Your task to perform on an android device: set the timer Image 0: 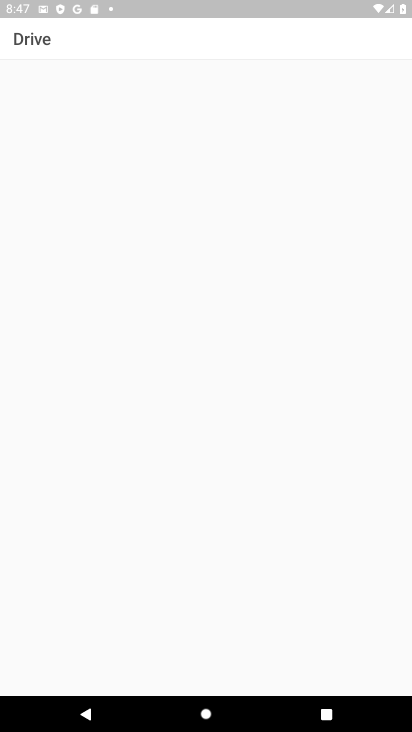
Step 0: press home button
Your task to perform on an android device: set the timer Image 1: 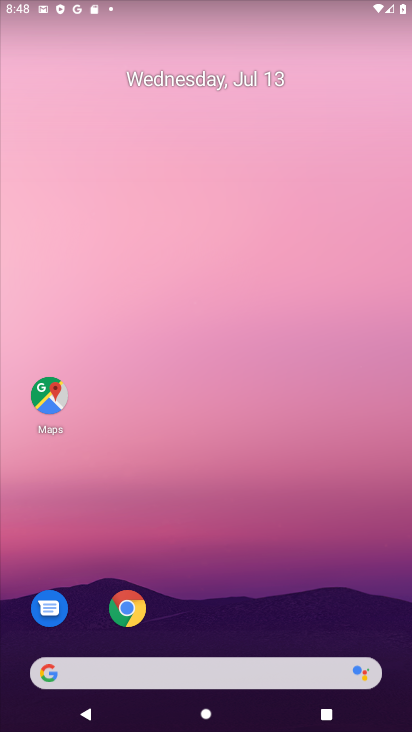
Step 1: drag from (217, 632) to (288, 131)
Your task to perform on an android device: set the timer Image 2: 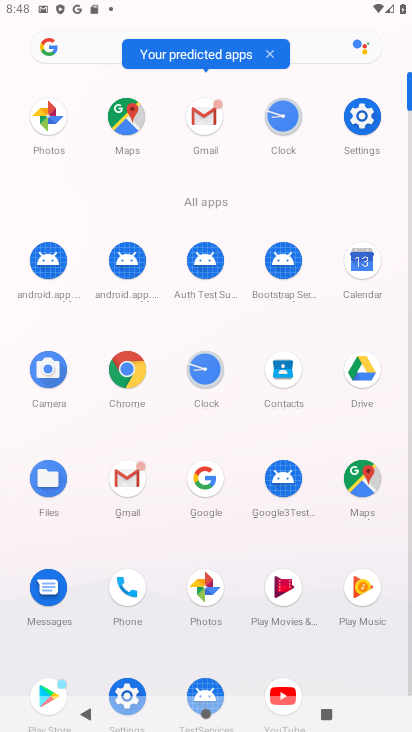
Step 2: click (208, 372)
Your task to perform on an android device: set the timer Image 3: 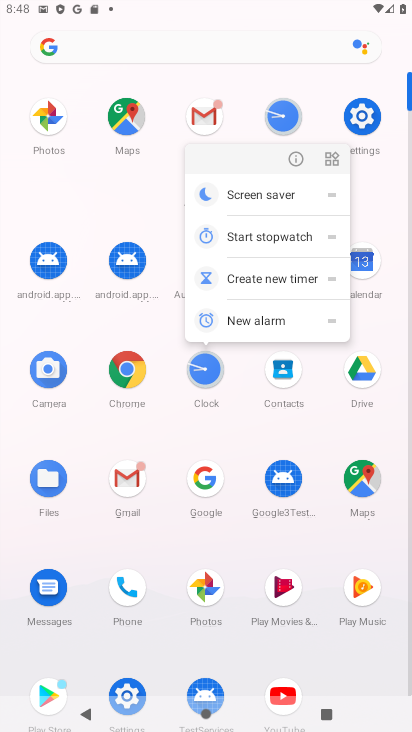
Step 3: click (207, 376)
Your task to perform on an android device: set the timer Image 4: 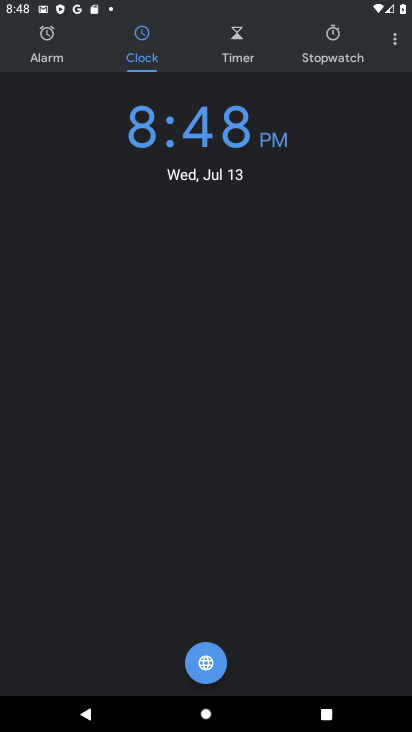
Step 4: click (233, 32)
Your task to perform on an android device: set the timer Image 5: 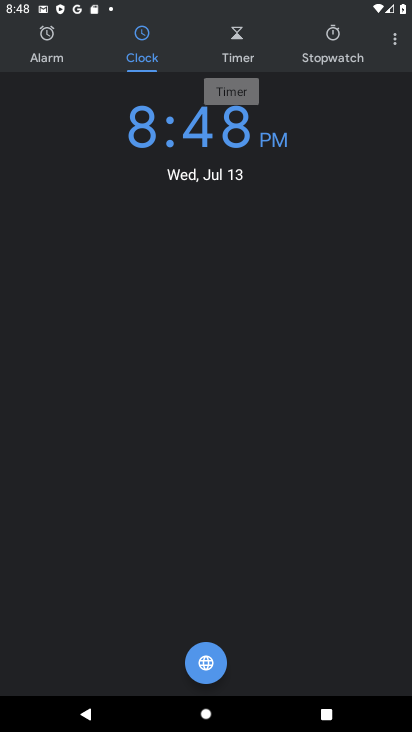
Step 5: click (233, 32)
Your task to perform on an android device: set the timer Image 6: 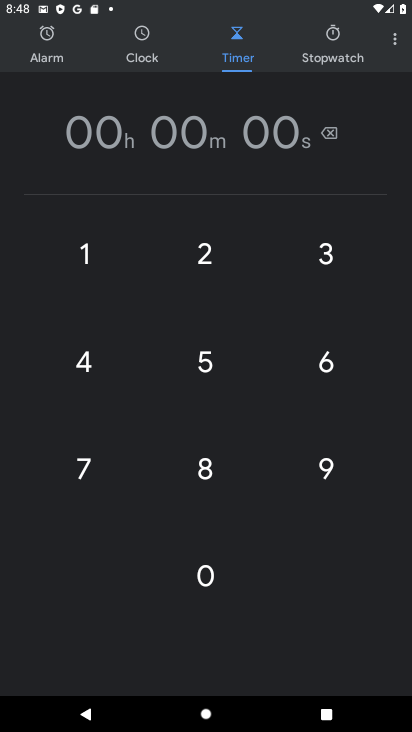
Step 6: click (223, 257)
Your task to perform on an android device: set the timer Image 7: 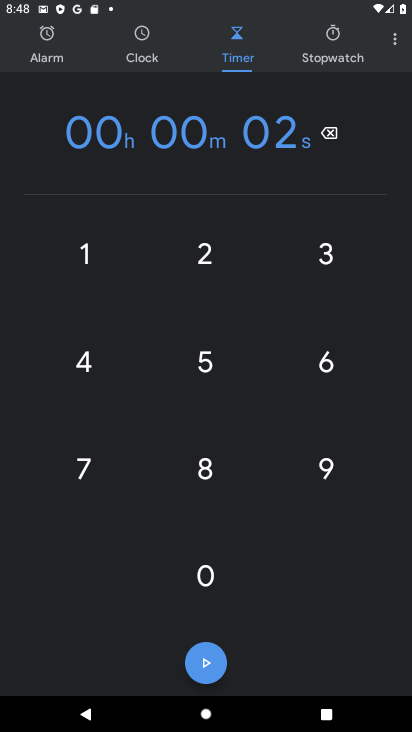
Step 7: click (207, 490)
Your task to perform on an android device: set the timer Image 8: 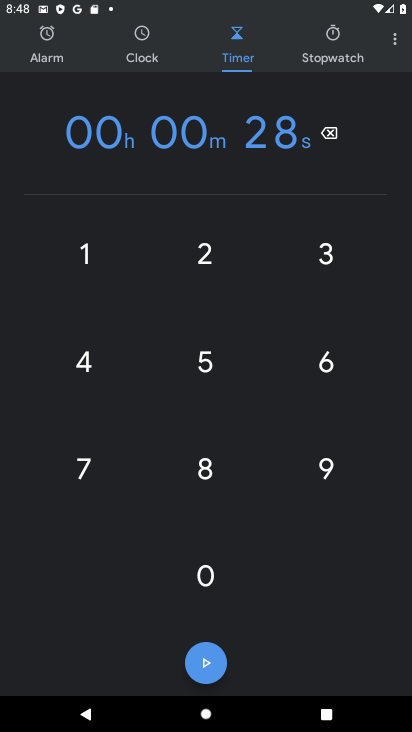
Step 8: click (197, 254)
Your task to perform on an android device: set the timer Image 9: 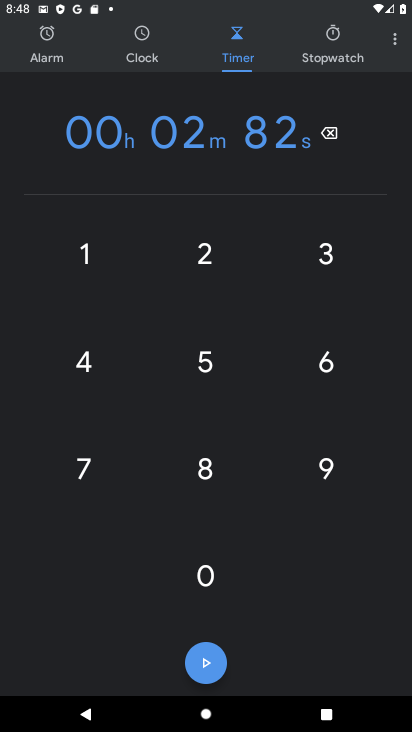
Step 9: click (329, 255)
Your task to perform on an android device: set the timer Image 10: 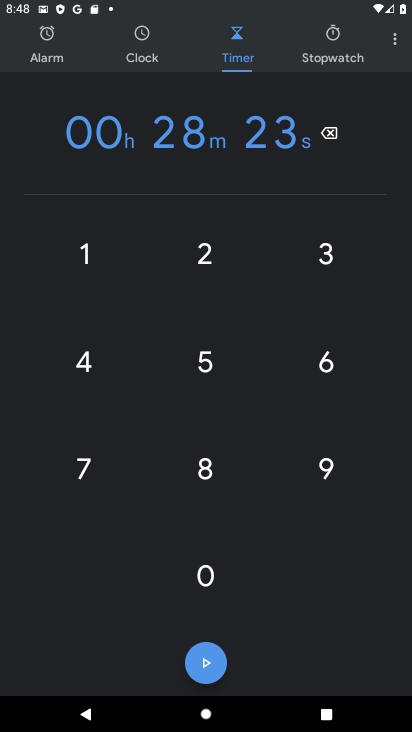
Step 10: click (220, 663)
Your task to perform on an android device: set the timer Image 11: 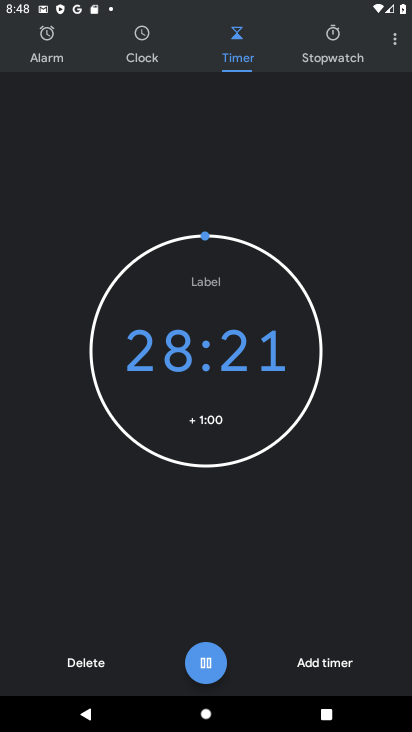
Step 11: task complete